Your task to perform on an android device: Go to eBay Image 0: 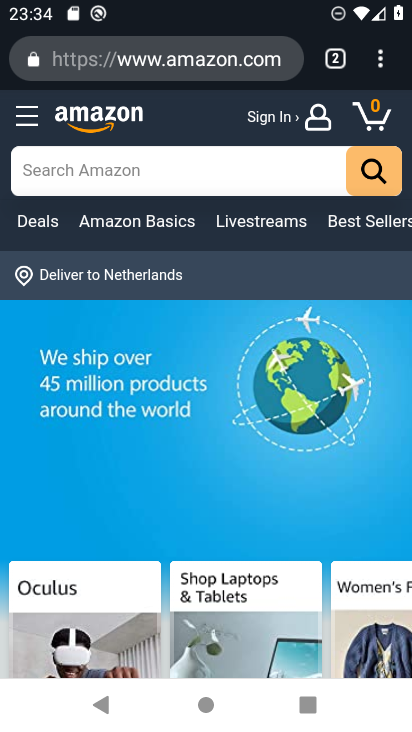
Step 0: press home button
Your task to perform on an android device: Go to eBay Image 1: 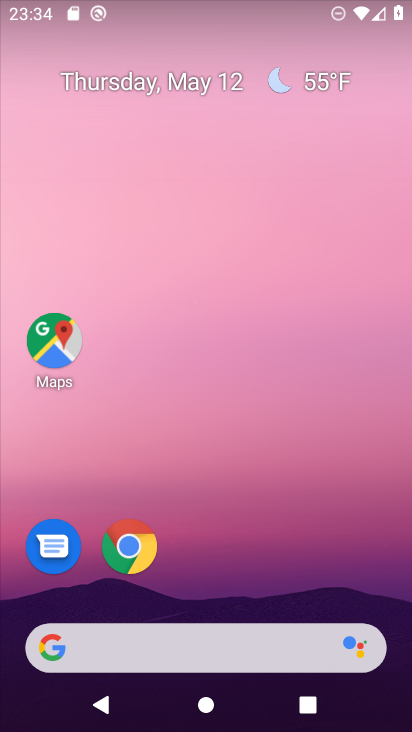
Step 1: click (129, 550)
Your task to perform on an android device: Go to eBay Image 2: 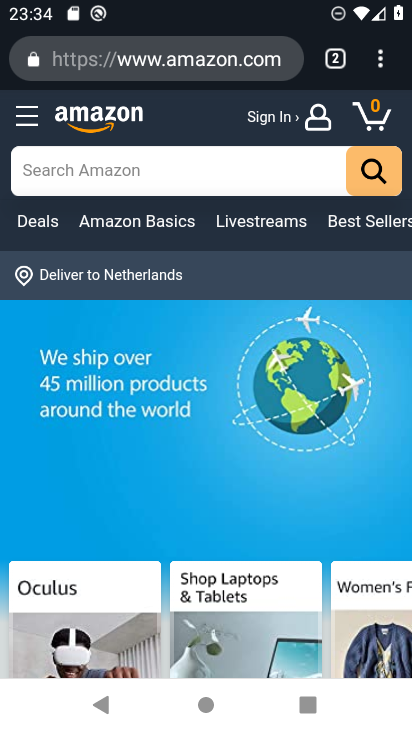
Step 2: click (76, 55)
Your task to perform on an android device: Go to eBay Image 3: 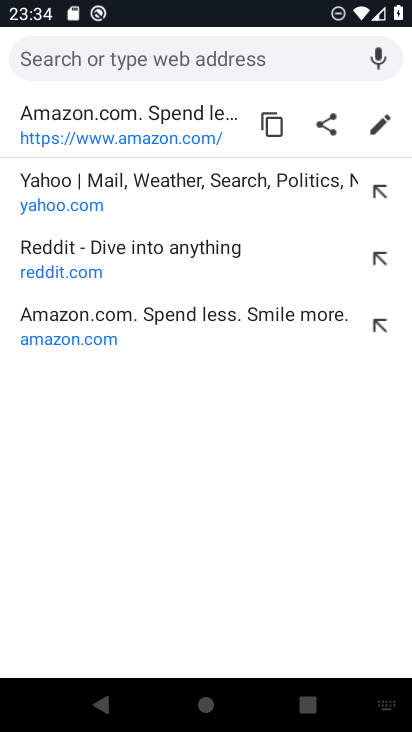
Step 3: type "eBay"
Your task to perform on an android device: Go to eBay Image 4: 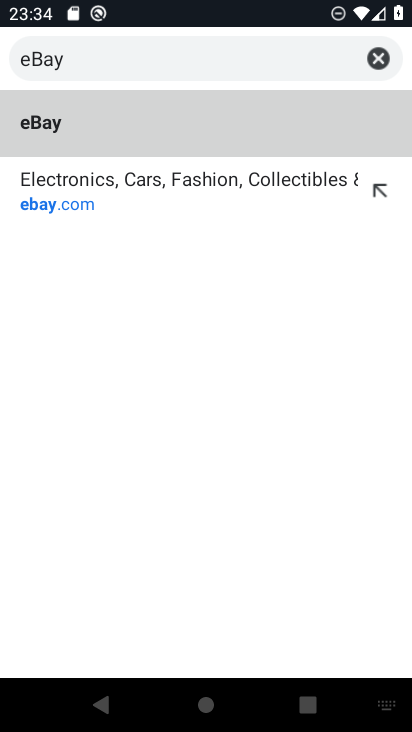
Step 4: click (99, 128)
Your task to perform on an android device: Go to eBay Image 5: 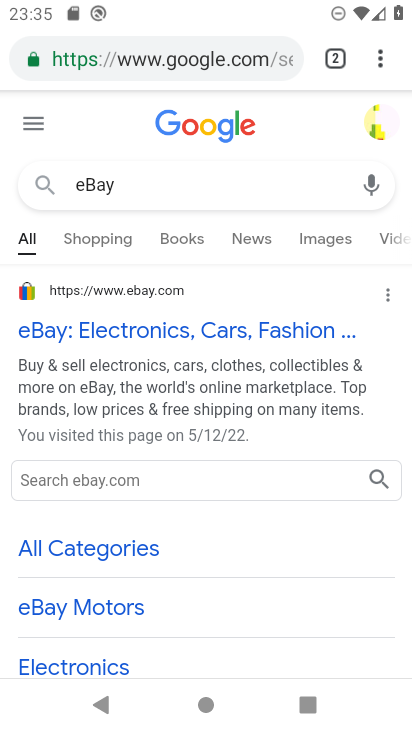
Step 5: task complete